Your task to perform on an android device: Is it going to rain today? Image 0: 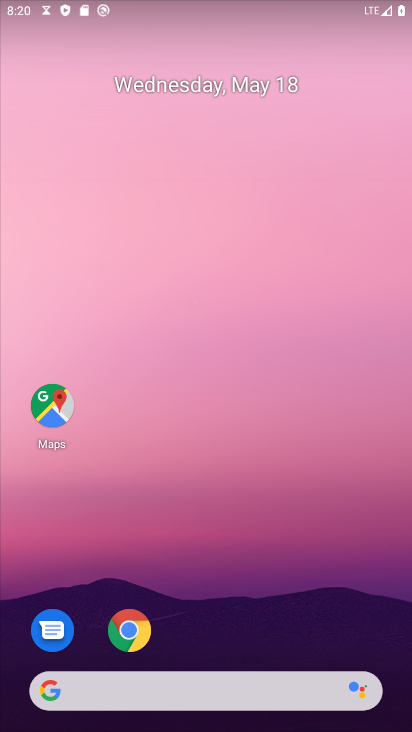
Step 0: drag from (321, 526) to (294, 154)
Your task to perform on an android device: Is it going to rain today? Image 1: 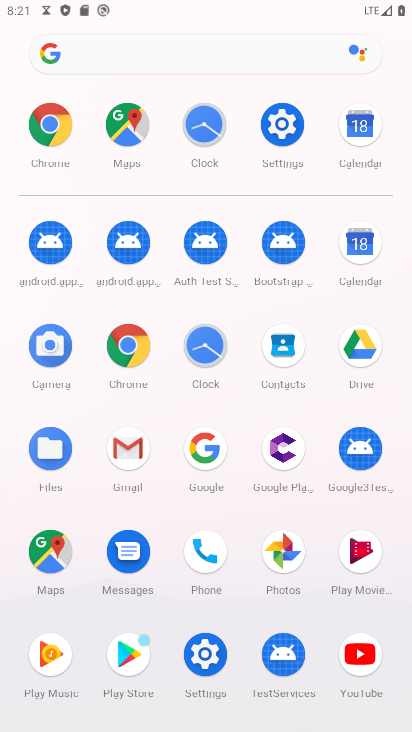
Step 1: click (38, 54)
Your task to perform on an android device: Is it going to rain today? Image 2: 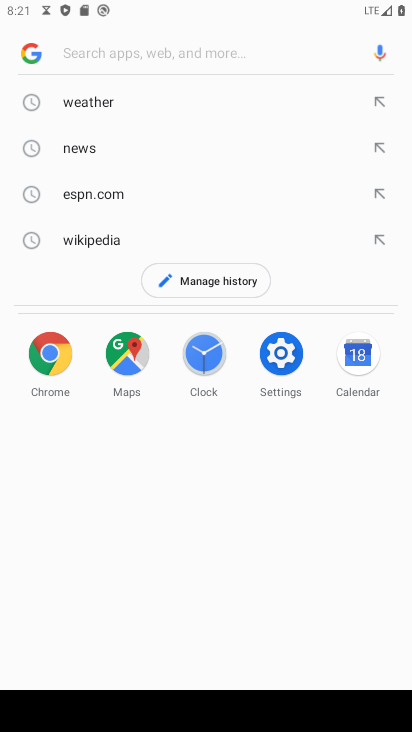
Step 2: click (39, 54)
Your task to perform on an android device: Is it going to rain today? Image 3: 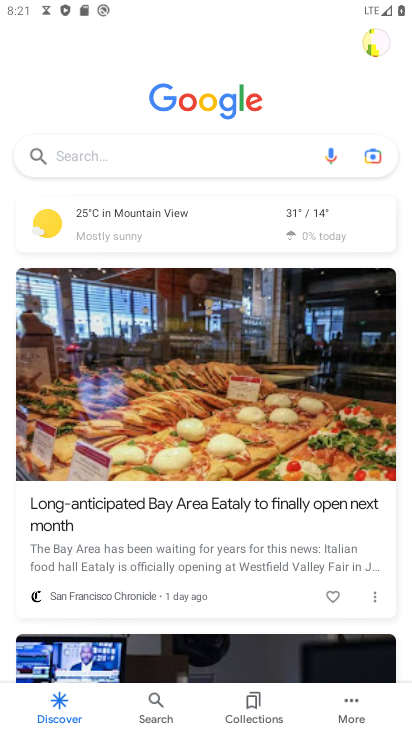
Step 3: click (128, 212)
Your task to perform on an android device: Is it going to rain today? Image 4: 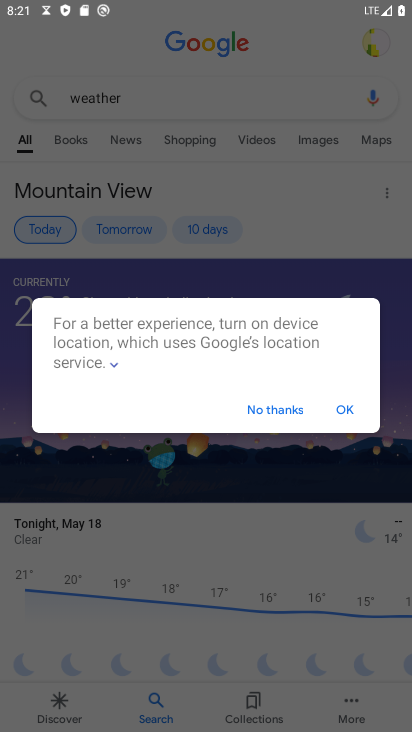
Step 4: task complete